Your task to perform on an android device: toggle wifi Image 0: 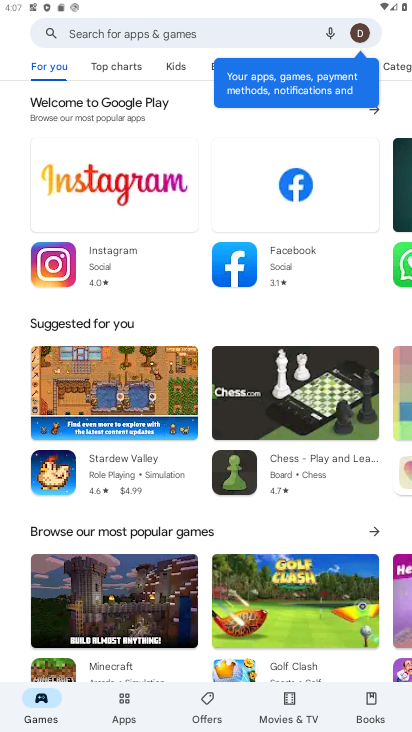
Step 0: press home button
Your task to perform on an android device: toggle wifi Image 1: 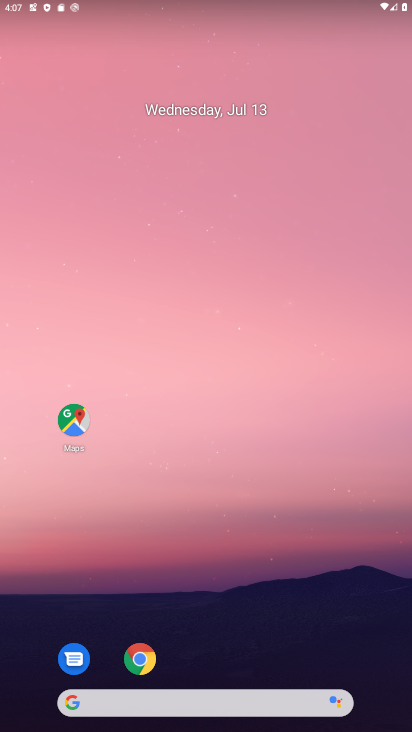
Step 1: drag from (245, 175) to (235, 581)
Your task to perform on an android device: toggle wifi Image 2: 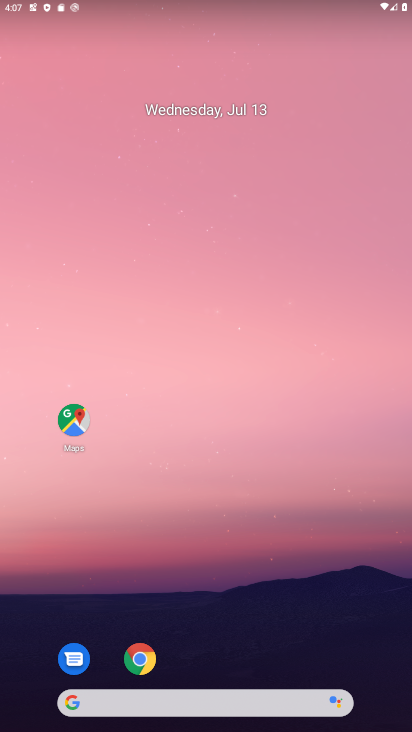
Step 2: drag from (211, 5) to (185, 558)
Your task to perform on an android device: toggle wifi Image 3: 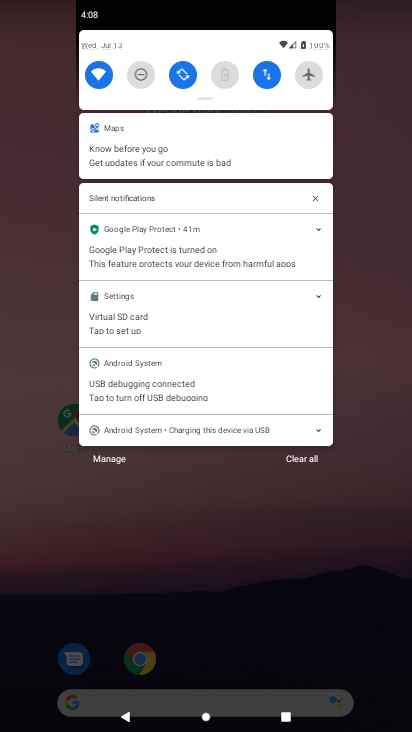
Step 3: click (101, 73)
Your task to perform on an android device: toggle wifi Image 4: 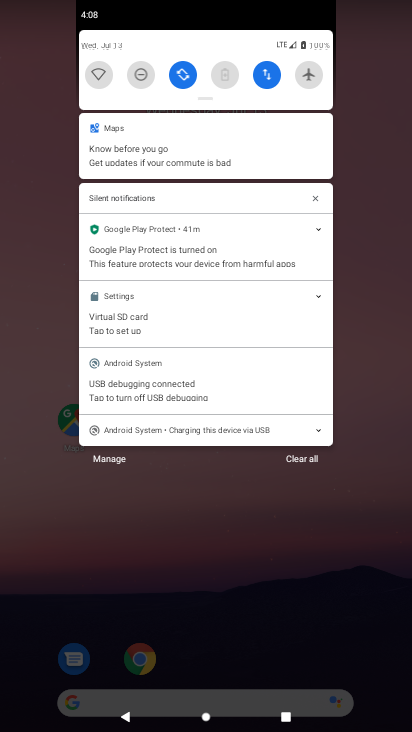
Step 4: task complete